Your task to perform on an android device: turn on location history Image 0: 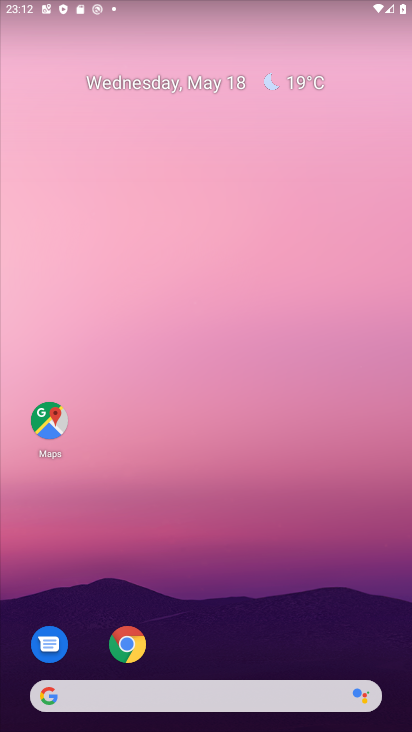
Step 0: drag from (253, 665) to (188, 207)
Your task to perform on an android device: turn on location history Image 1: 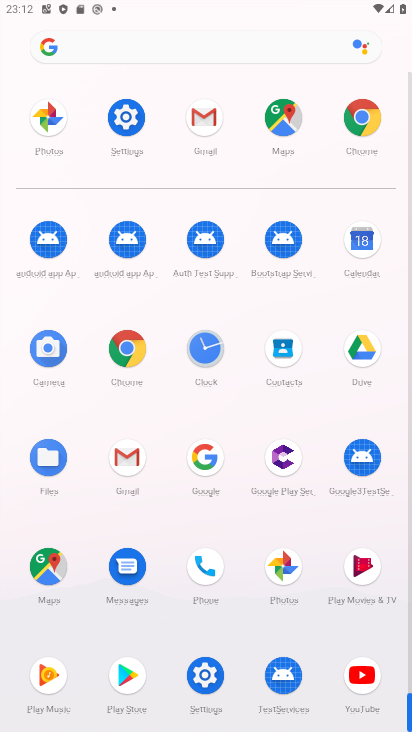
Step 1: drag from (228, 572) to (248, 206)
Your task to perform on an android device: turn on location history Image 2: 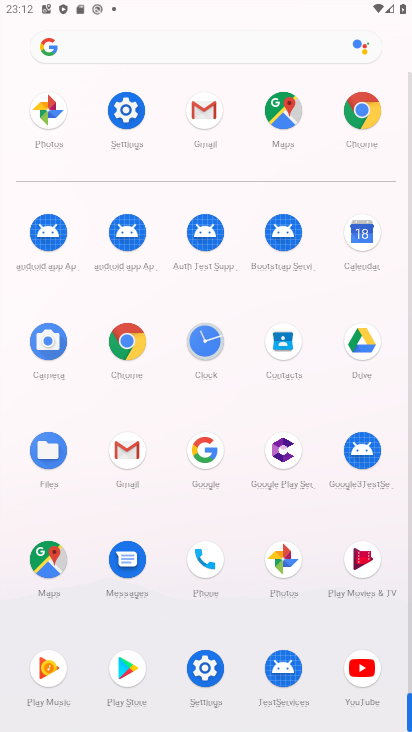
Step 2: click (205, 673)
Your task to perform on an android device: turn on location history Image 3: 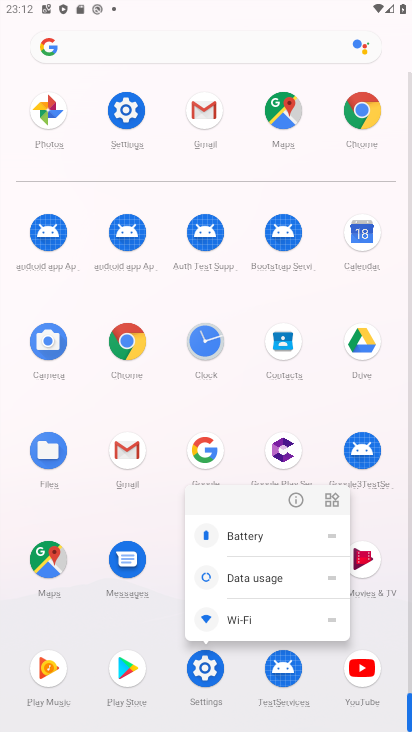
Step 3: click (204, 667)
Your task to perform on an android device: turn on location history Image 4: 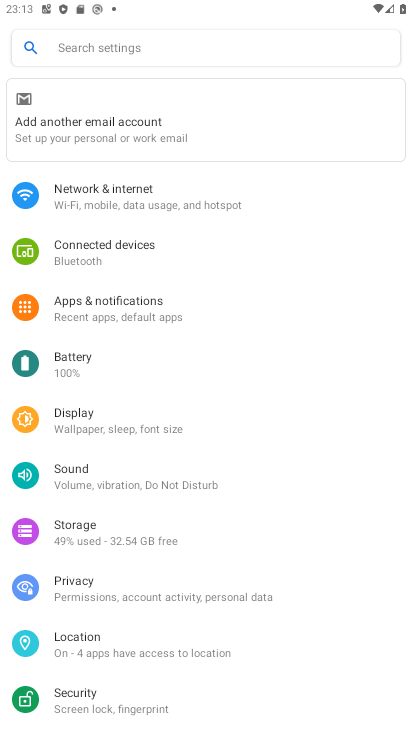
Step 4: drag from (150, 627) to (173, 336)
Your task to perform on an android device: turn on location history Image 5: 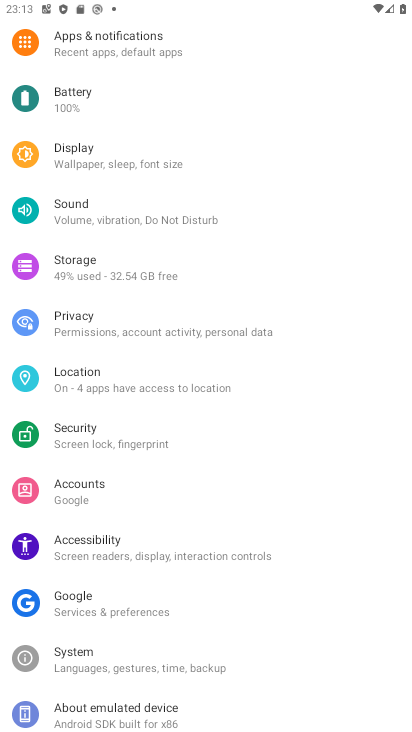
Step 5: click (93, 379)
Your task to perform on an android device: turn on location history Image 6: 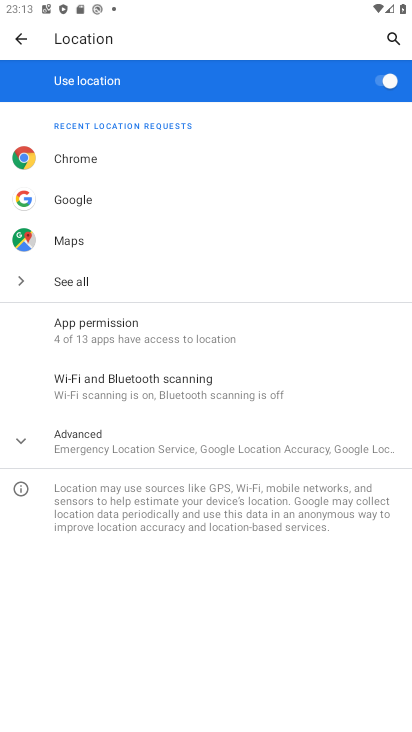
Step 6: click (101, 422)
Your task to perform on an android device: turn on location history Image 7: 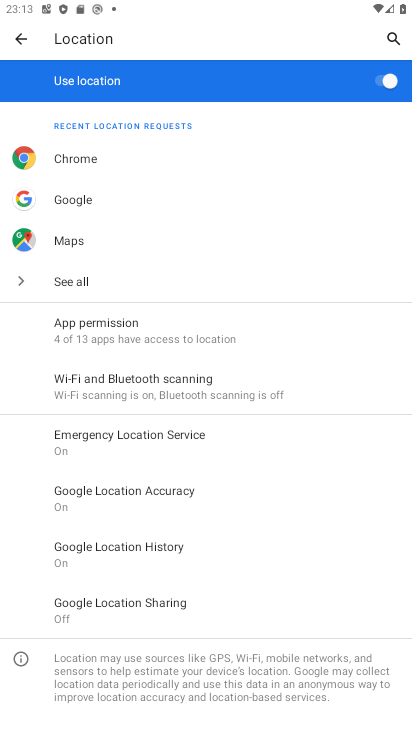
Step 7: click (162, 552)
Your task to perform on an android device: turn on location history Image 8: 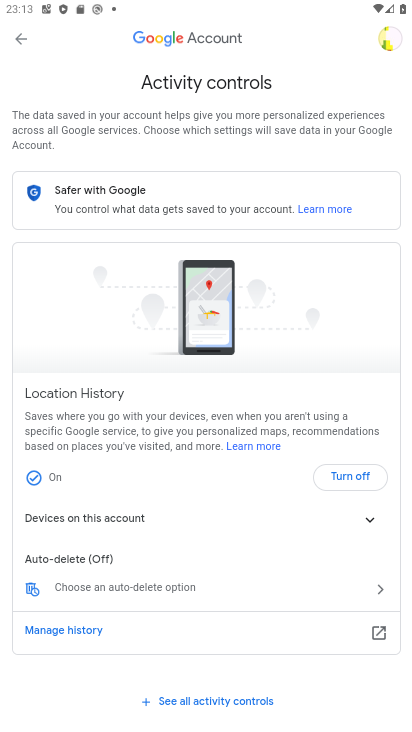
Step 8: drag from (180, 630) to (206, 413)
Your task to perform on an android device: turn on location history Image 9: 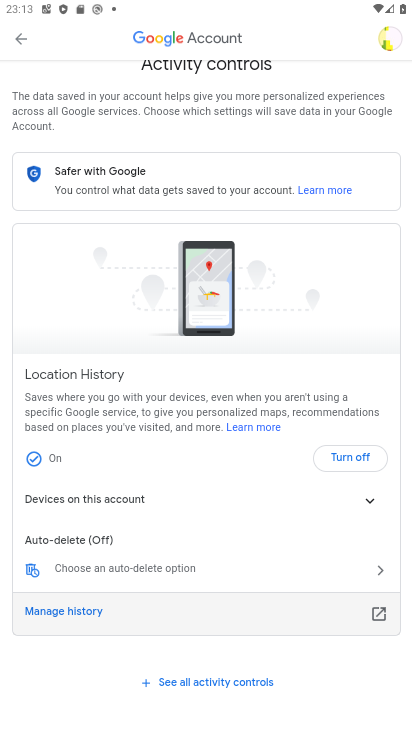
Step 9: press home button
Your task to perform on an android device: turn on location history Image 10: 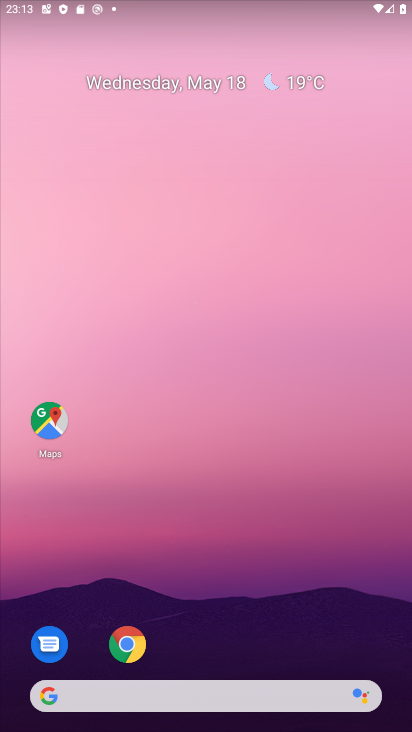
Step 10: click (47, 434)
Your task to perform on an android device: turn on location history Image 11: 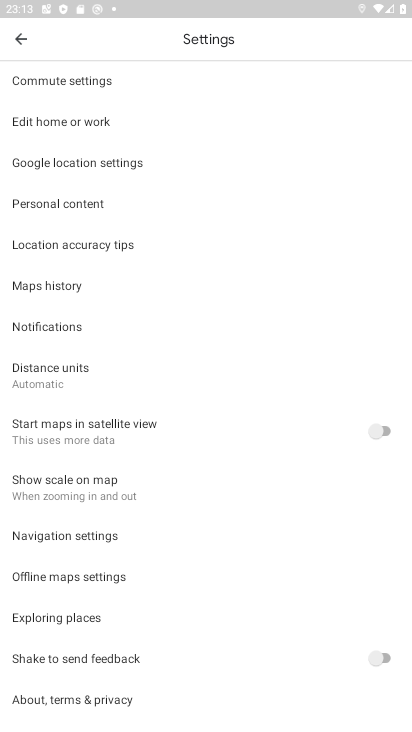
Step 11: press home button
Your task to perform on an android device: turn on location history Image 12: 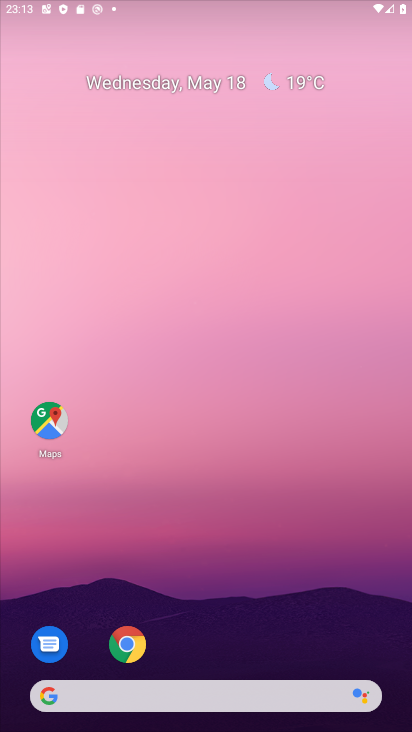
Step 12: drag from (248, 615) to (276, 108)
Your task to perform on an android device: turn on location history Image 13: 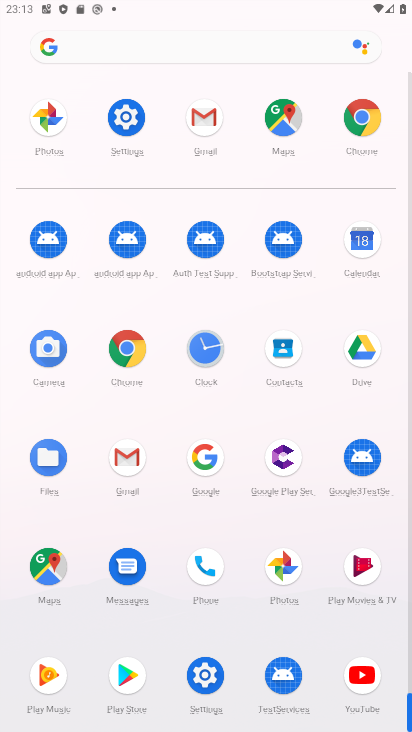
Step 13: click (191, 681)
Your task to perform on an android device: turn on location history Image 14: 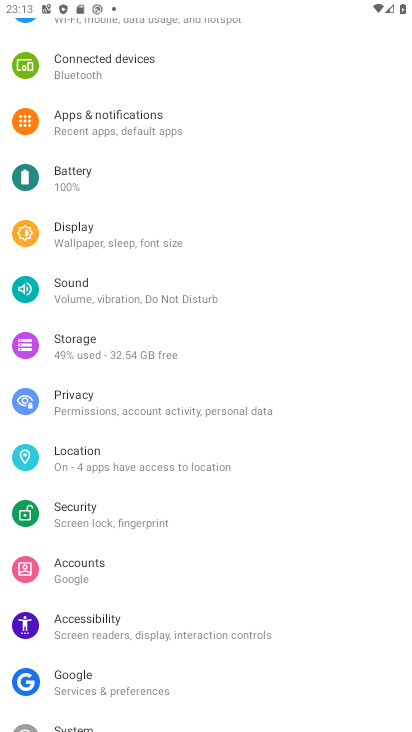
Step 14: click (141, 471)
Your task to perform on an android device: turn on location history Image 15: 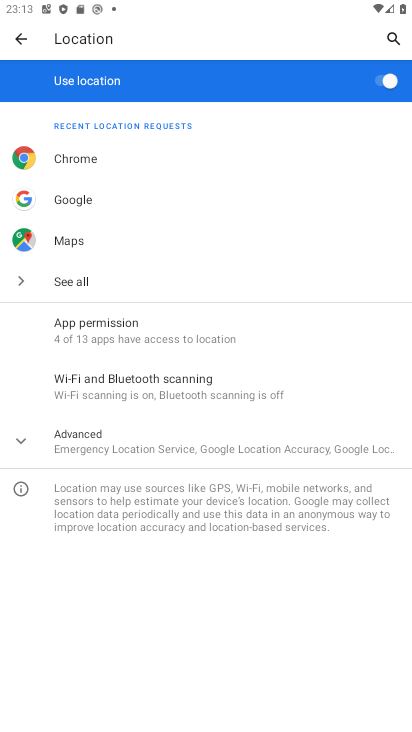
Step 15: click (131, 443)
Your task to perform on an android device: turn on location history Image 16: 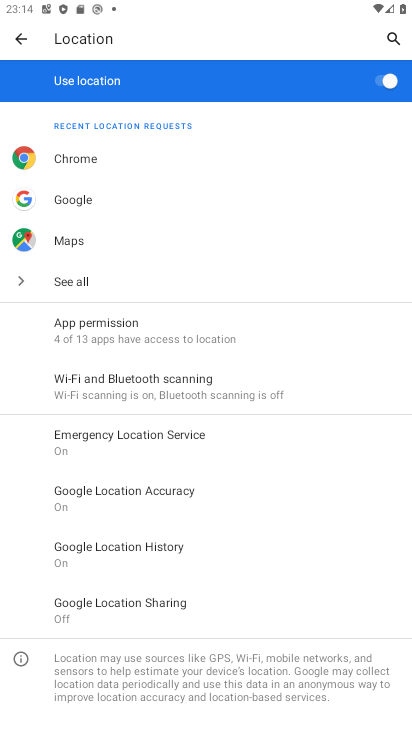
Step 16: click (144, 545)
Your task to perform on an android device: turn on location history Image 17: 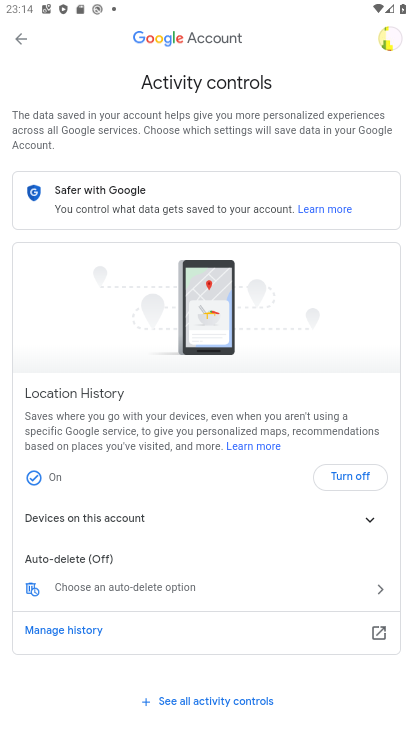
Step 17: task complete